Your task to perform on an android device: turn off javascript in the chrome app Image 0: 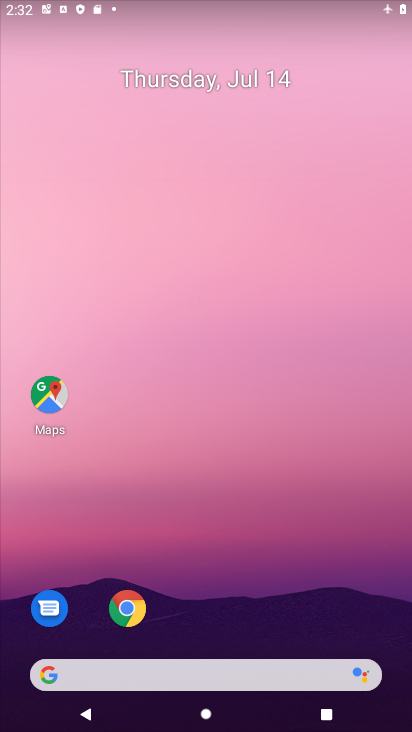
Step 0: click (127, 605)
Your task to perform on an android device: turn off javascript in the chrome app Image 1: 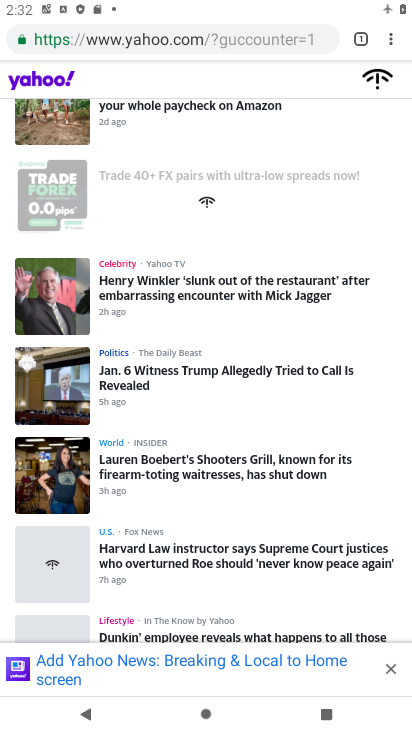
Step 1: click (390, 44)
Your task to perform on an android device: turn off javascript in the chrome app Image 2: 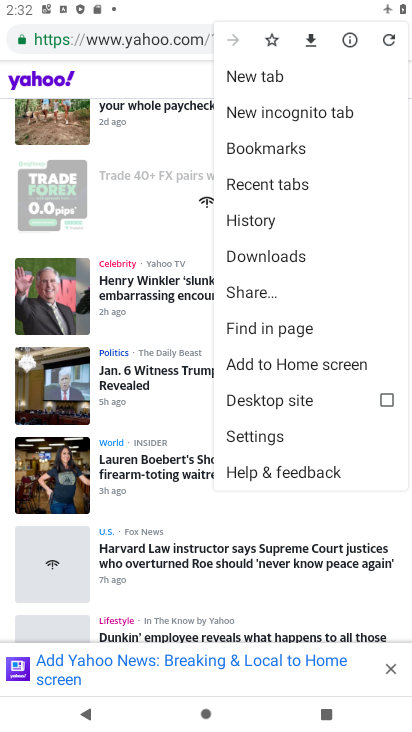
Step 2: click (256, 433)
Your task to perform on an android device: turn off javascript in the chrome app Image 3: 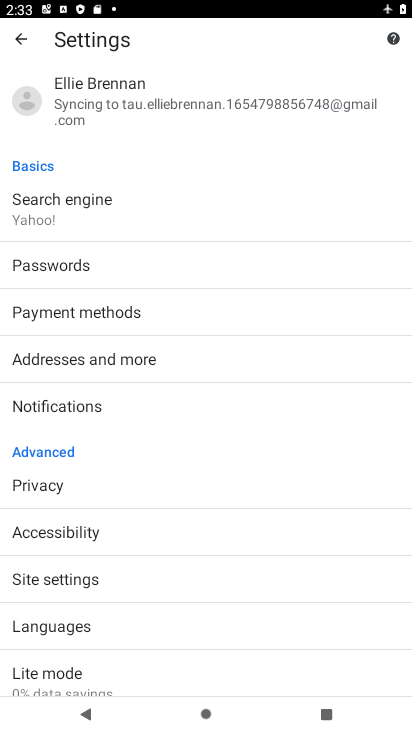
Step 3: click (42, 570)
Your task to perform on an android device: turn off javascript in the chrome app Image 4: 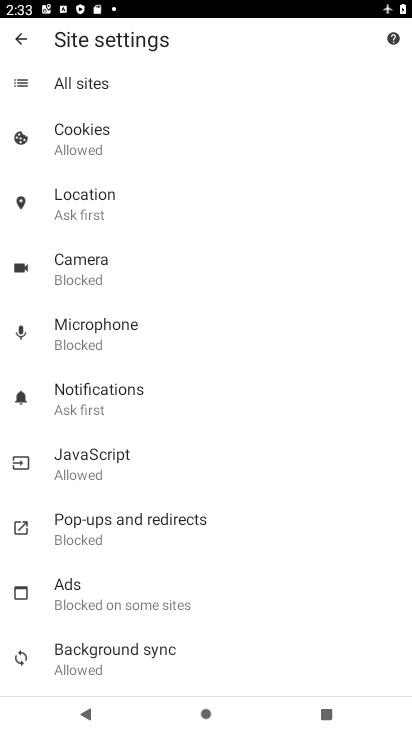
Step 4: click (85, 467)
Your task to perform on an android device: turn off javascript in the chrome app Image 5: 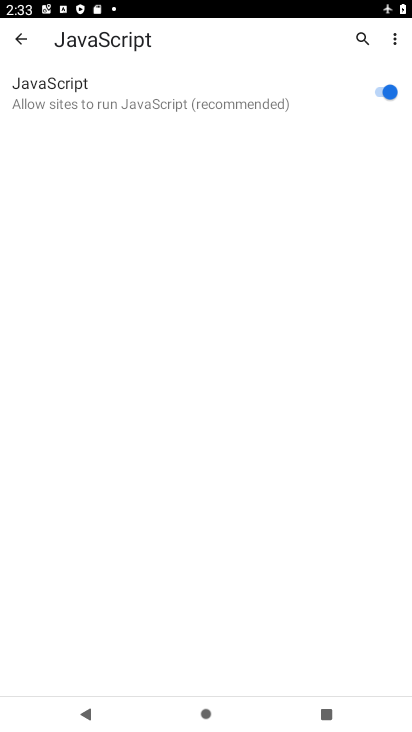
Step 5: click (374, 90)
Your task to perform on an android device: turn off javascript in the chrome app Image 6: 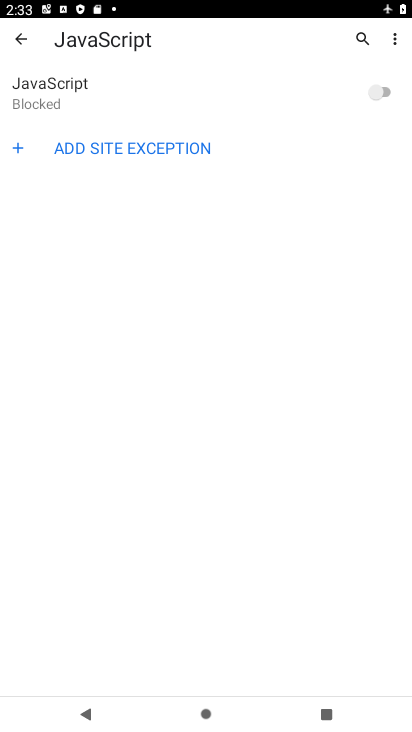
Step 6: task complete